Your task to perform on an android device: Open CNN.com Image 0: 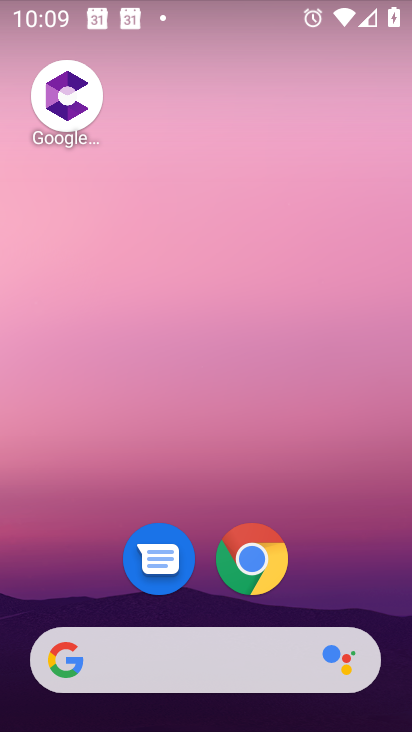
Step 0: click (264, 554)
Your task to perform on an android device: Open CNN.com Image 1: 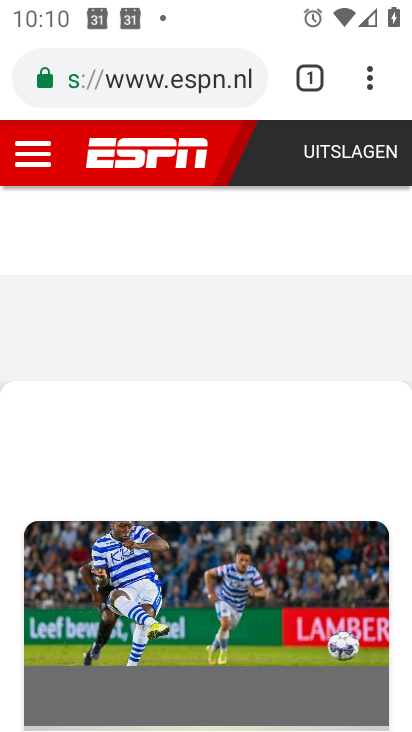
Step 1: click (371, 87)
Your task to perform on an android device: Open CNN.com Image 2: 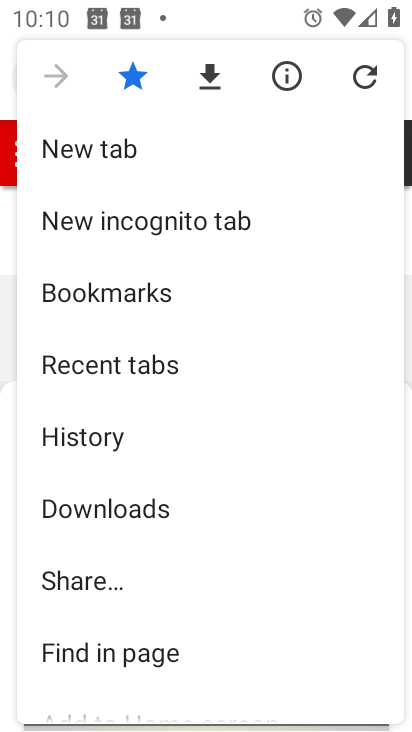
Step 2: click (102, 150)
Your task to perform on an android device: Open CNN.com Image 3: 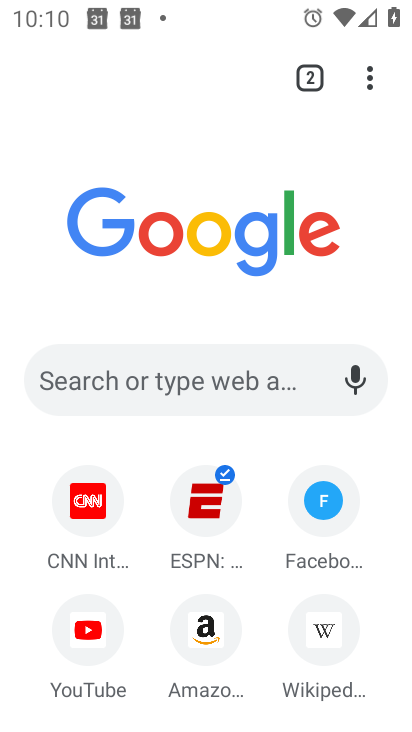
Step 3: click (240, 386)
Your task to perform on an android device: Open CNN.com Image 4: 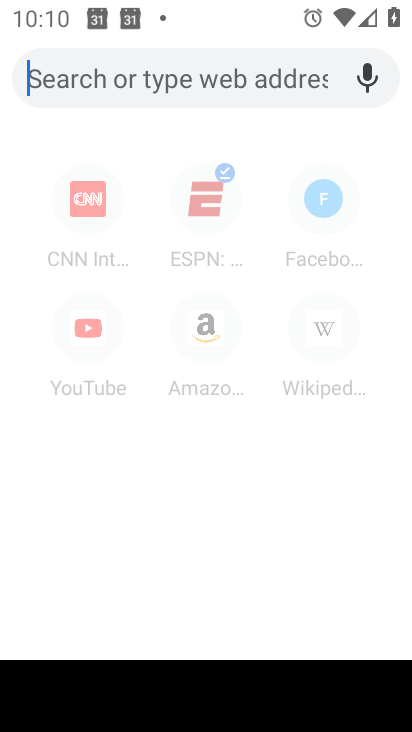
Step 4: type "CNN.com"
Your task to perform on an android device: Open CNN.com Image 5: 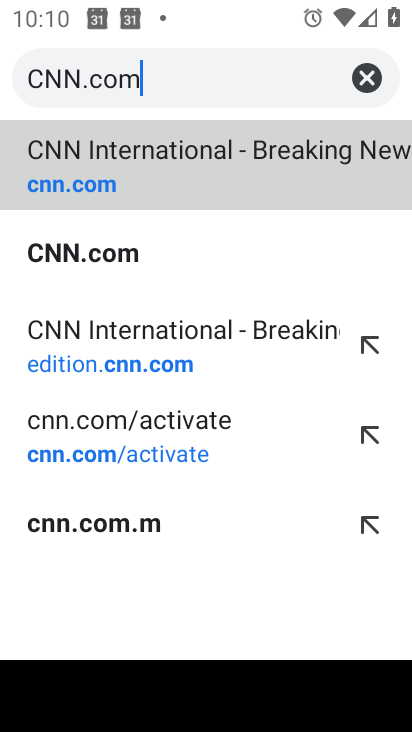
Step 5: click (107, 160)
Your task to perform on an android device: Open CNN.com Image 6: 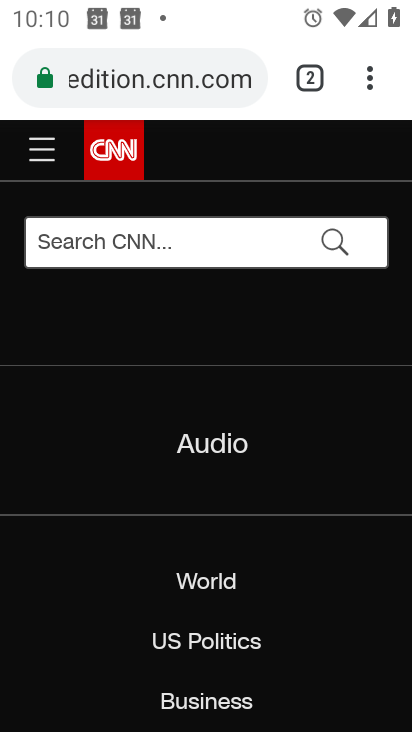
Step 6: task complete